Your task to perform on an android device: Go to sound settings Image 0: 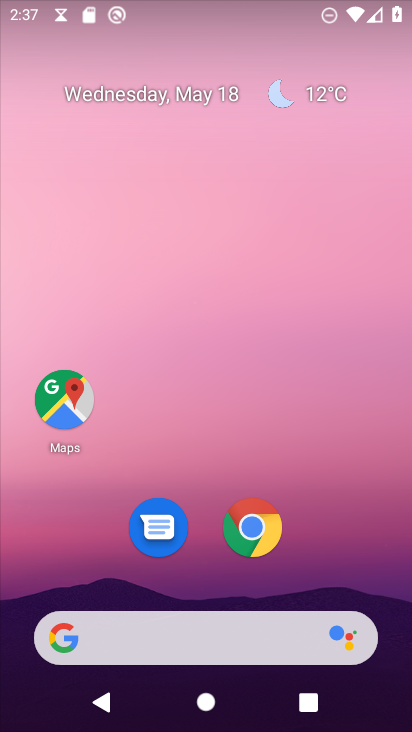
Step 0: drag from (334, 552) to (223, 38)
Your task to perform on an android device: Go to sound settings Image 1: 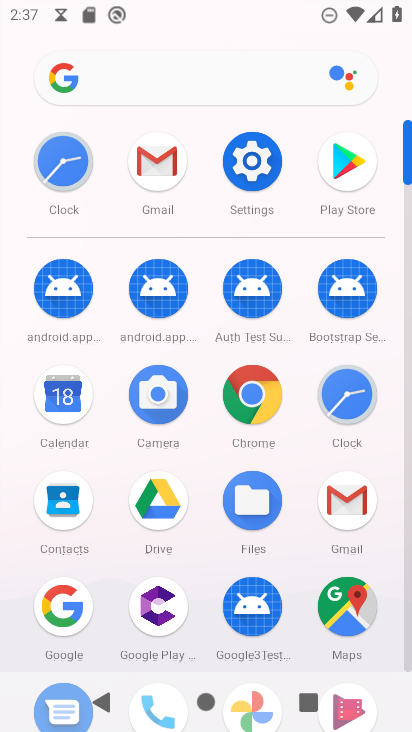
Step 1: click (252, 153)
Your task to perform on an android device: Go to sound settings Image 2: 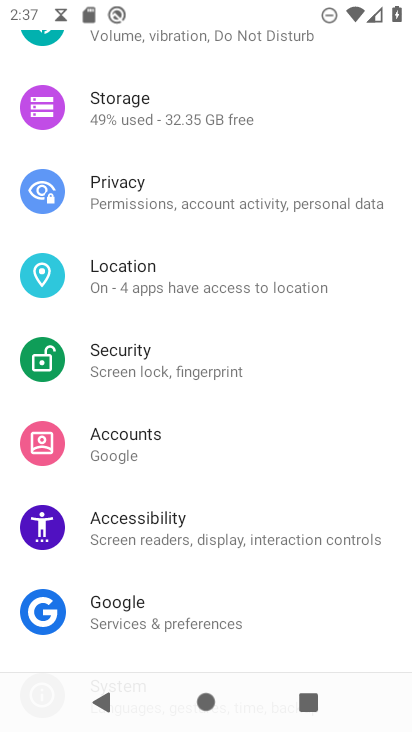
Step 2: drag from (221, 100) to (168, 530)
Your task to perform on an android device: Go to sound settings Image 3: 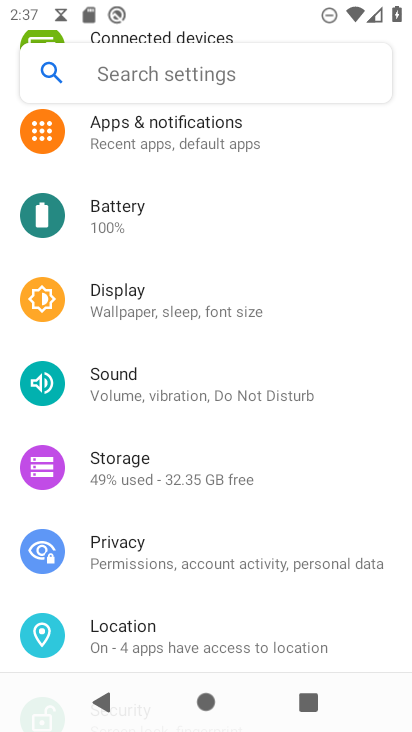
Step 3: click (169, 388)
Your task to perform on an android device: Go to sound settings Image 4: 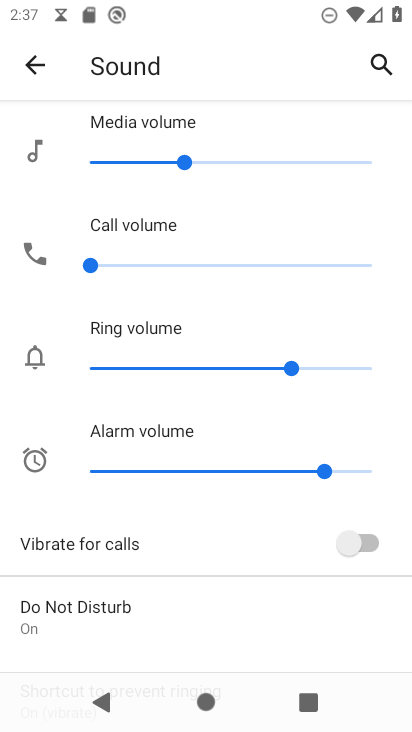
Step 4: task complete